Your task to perform on an android device: turn on sleep mode Image 0: 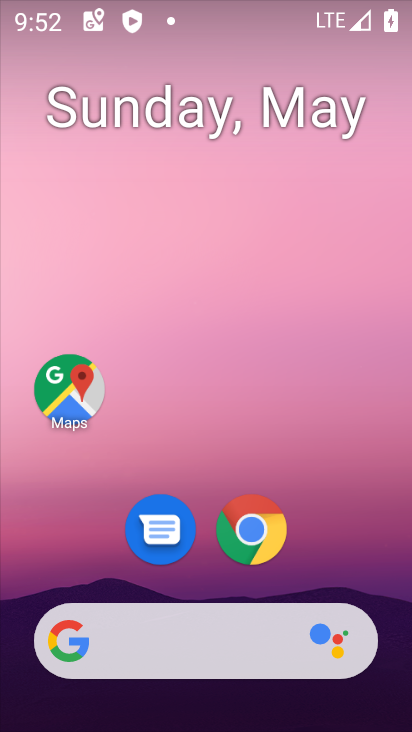
Step 0: drag from (377, 558) to (255, 135)
Your task to perform on an android device: turn on sleep mode Image 1: 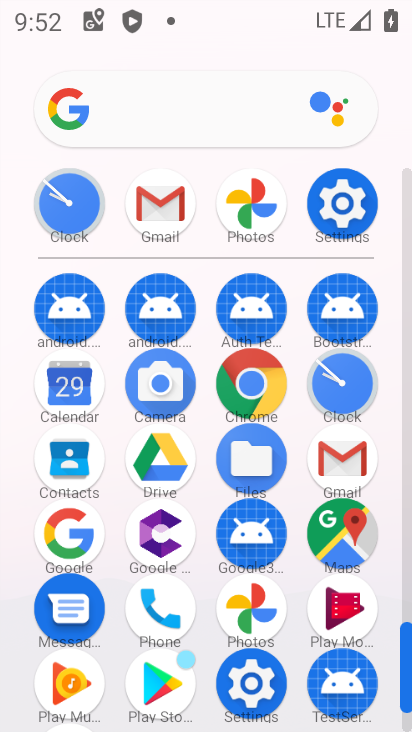
Step 1: click (328, 225)
Your task to perform on an android device: turn on sleep mode Image 2: 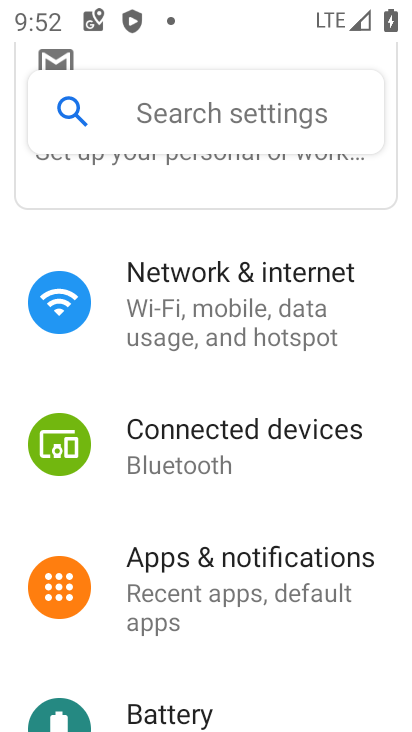
Step 2: drag from (231, 633) to (215, 210)
Your task to perform on an android device: turn on sleep mode Image 3: 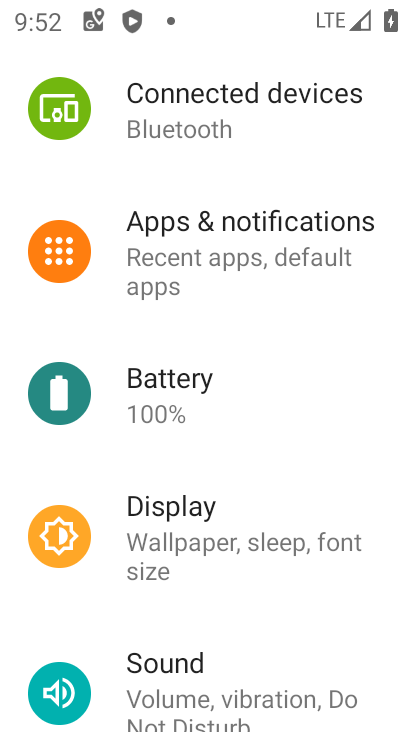
Step 3: click (199, 521)
Your task to perform on an android device: turn on sleep mode Image 4: 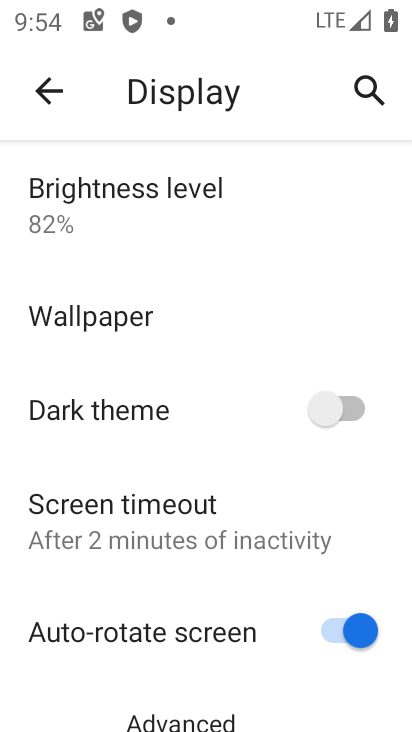
Step 4: task complete